Your task to perform on an android device: check google app version Image 0: 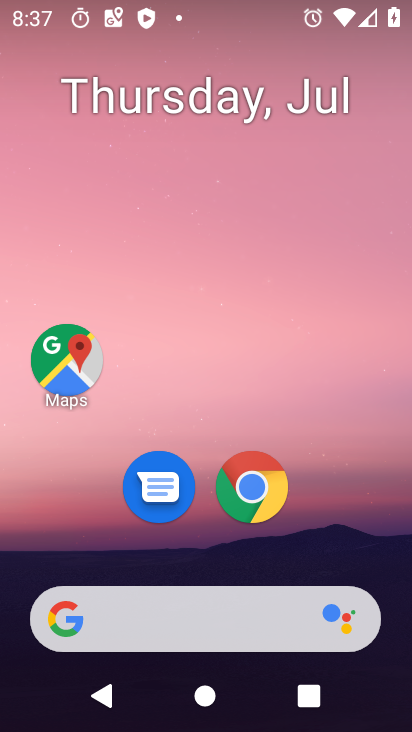
Step 0: drag from (150, 594) to (166, 22)
Your task to perform on an android device: check google app version Image 1: 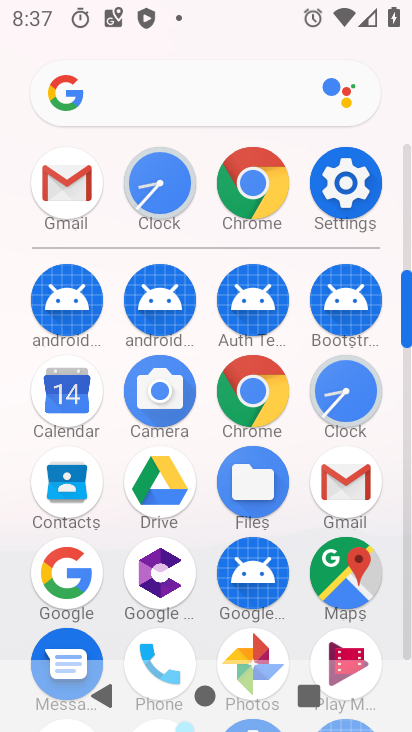
Step 1: click (56, 567)
Your task to perform on an android device: check google app version Image 2: 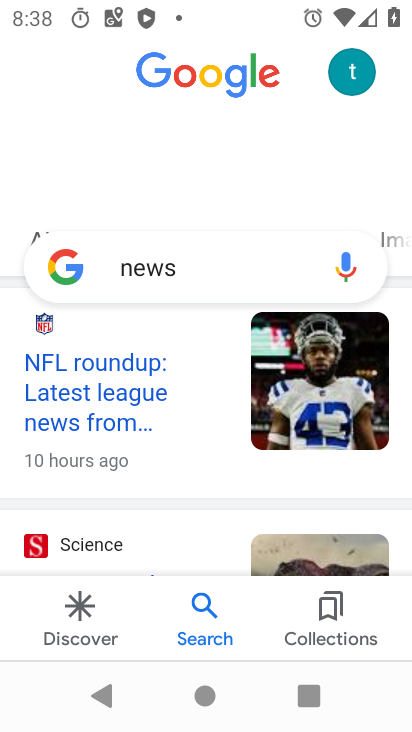
Step 2: click (342, 78)
Your task to perform on an android device: check google app version Image 3: 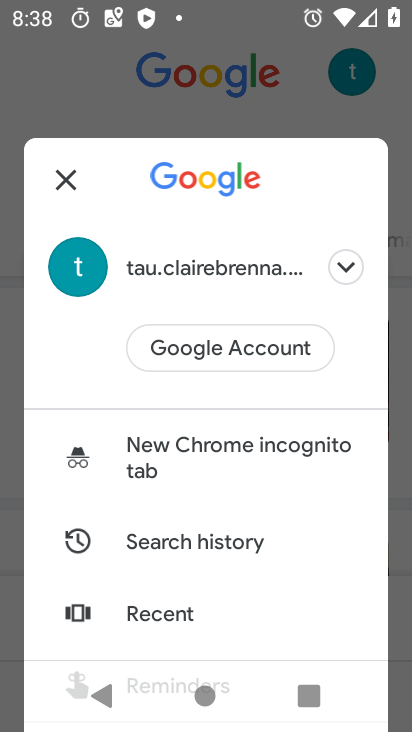
Step 3: drag from (206, 578) to (184, 232)
Your task to perform on an android device: check google app version Image 4: 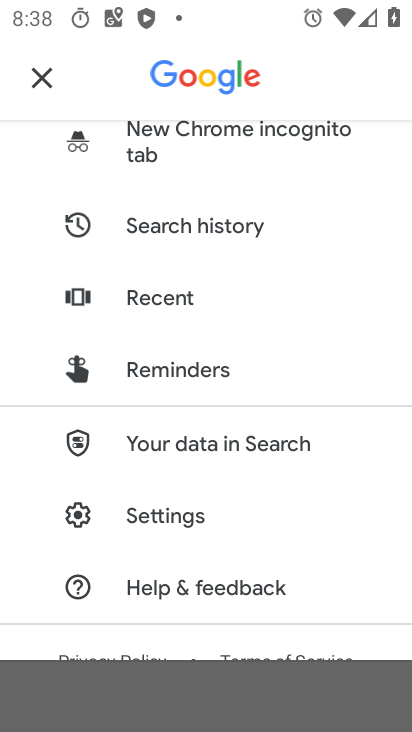
Step 4: click (176, 517)
Your task to perform on an android device: check google app version Image 5: 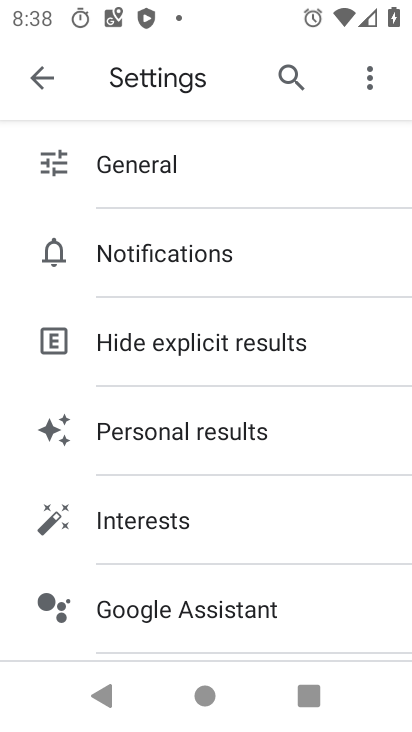
Step 5: drag from (185, 530) to (178, 184)
Your task to perform on an android device: check google app version Image 6: 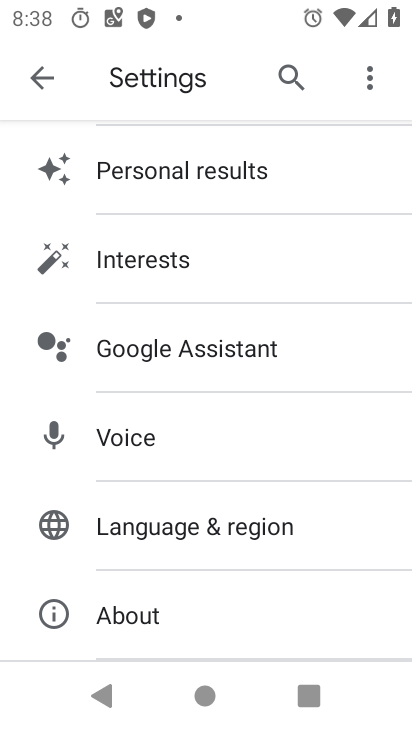
Step 6: click (167, 622)
Your task to perform on an android device: check google app version Image 7: 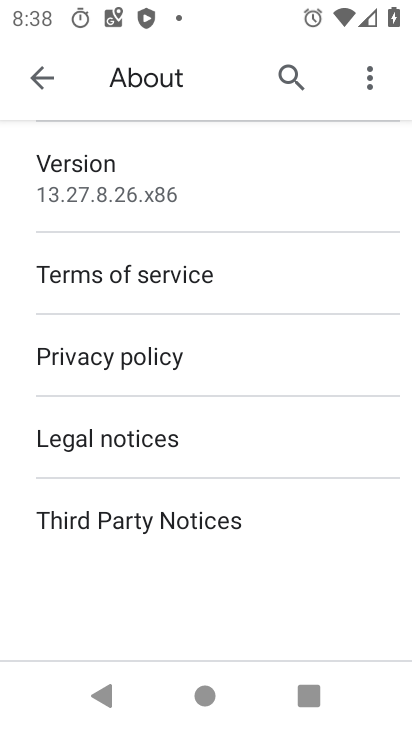
Step 7: task complete